Your task to perform on an android device: Open Google Chrome and click the shortcut for Amazon.com Image 0: 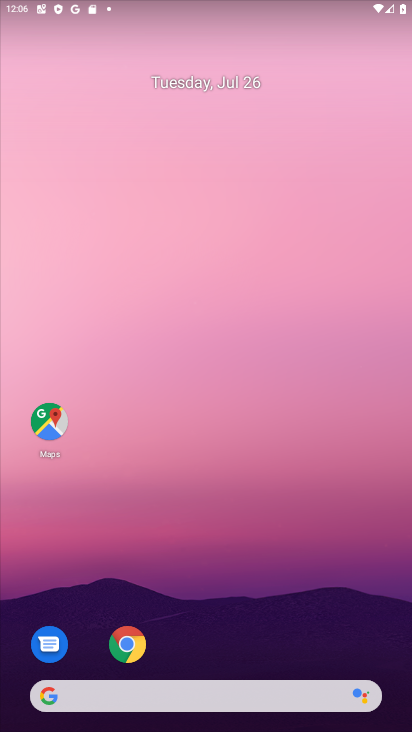
Step 0: click (136, 653)
Your task to perform on an android device: Open Google Chrome and click the shortcut for Amazon.com Image 1: 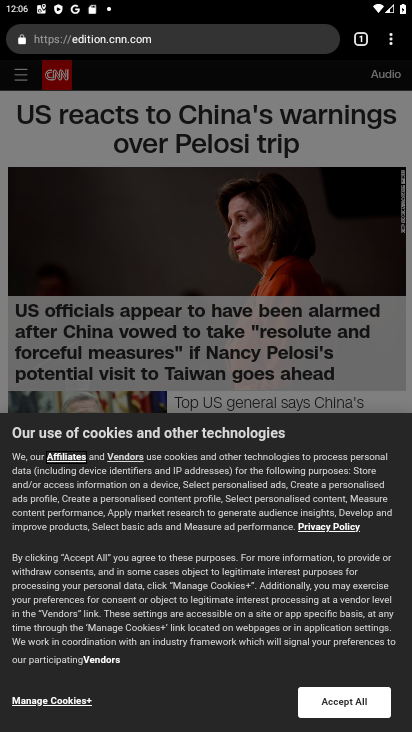
Step 1: click (391, 38)
Your task to perform on an android device: Open Google Chrome and click the shortcut for Amazon.com Image 2: 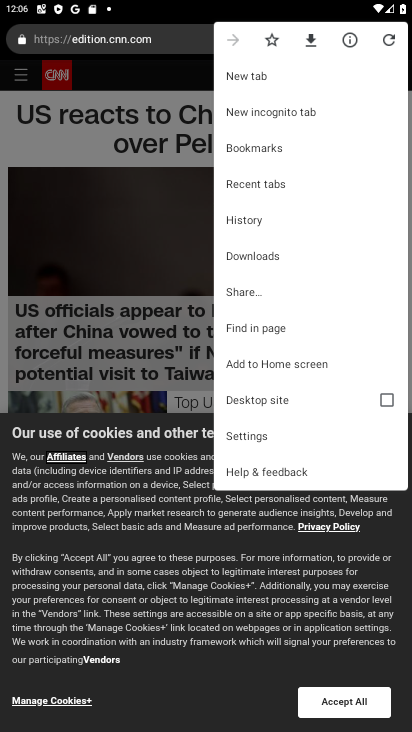
Step 2: click (257, 72)
Your task to perform on an android device: Open Google Chrome and click the shortcut for Amazon.com Image 3: 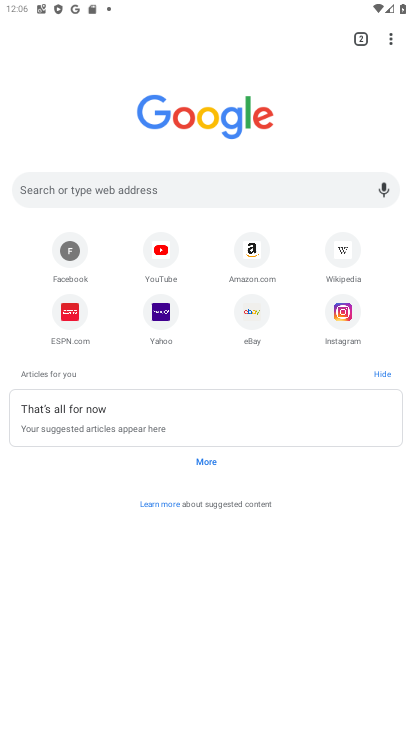
Step 3: click (242, 255)
Your task to perform on an android device: Open Google Chrome and click the shortcut for Amazon.com Image 4: 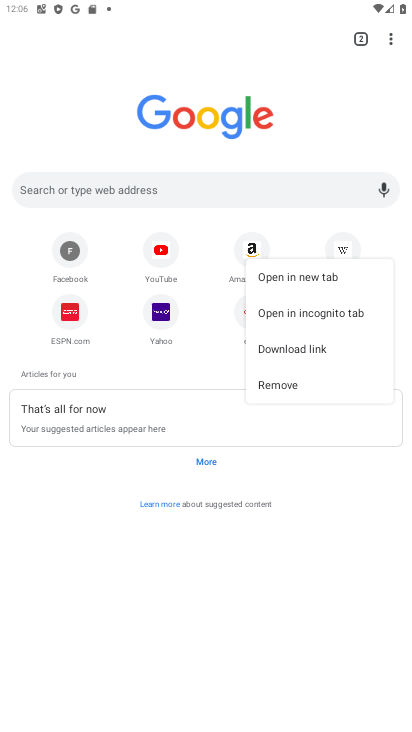
Step 4: click (249, 253)
Your task to perform on an android device: Open Google Chrome and click the shortcut for Amazon.com Image 5: 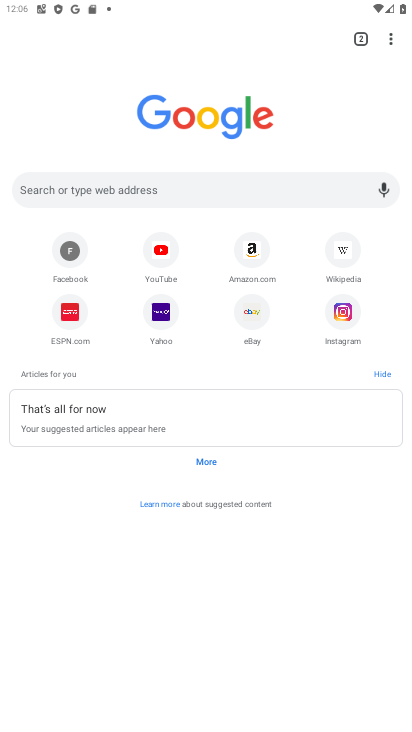
Step 5: click (253, 253)
Your task to perform on an android device: Open Google Chrome and click the shortcut for Amazon.com Image 6: 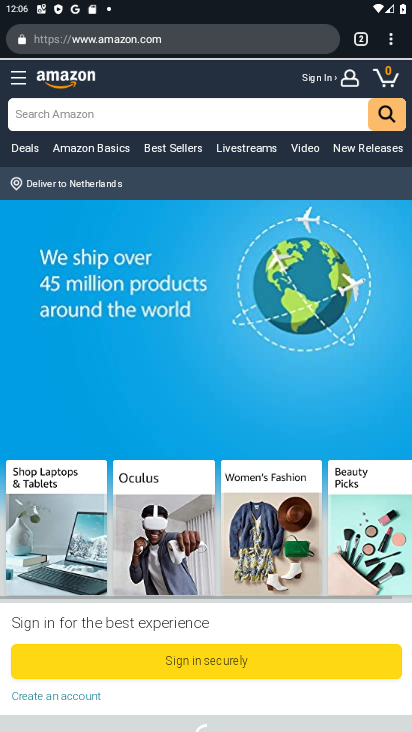
Step 6: task complete